Your task to perform on an android device: What is the news today? Image 0: 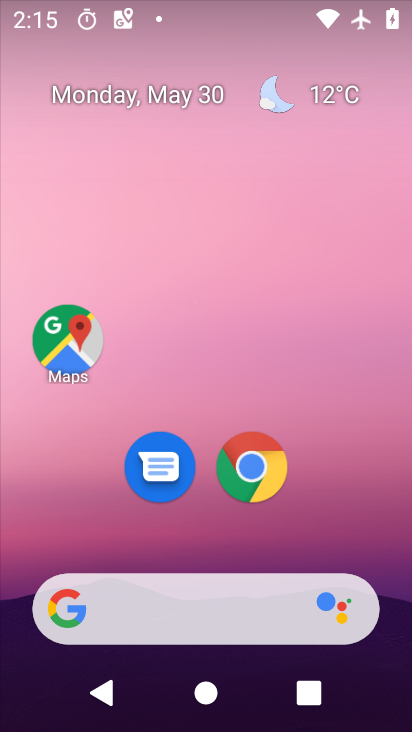
Step 0: drag from (2, 196) to (411, 254)
Your task to perform on an android device: What is the news today? Image 1: 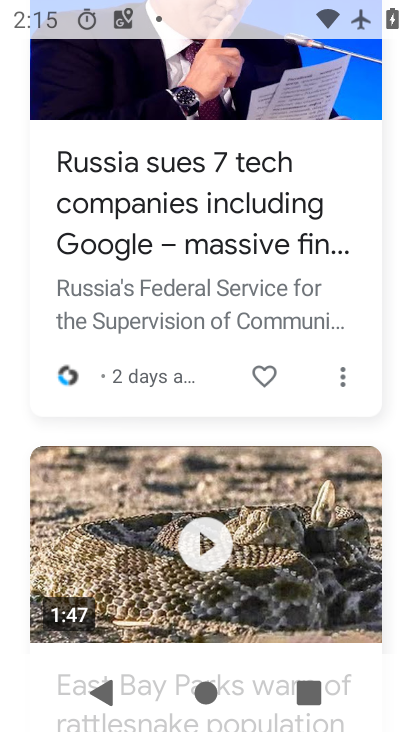
Step 1: task complete